Your task to perform on an android device: change the clock display to analog Image 0: 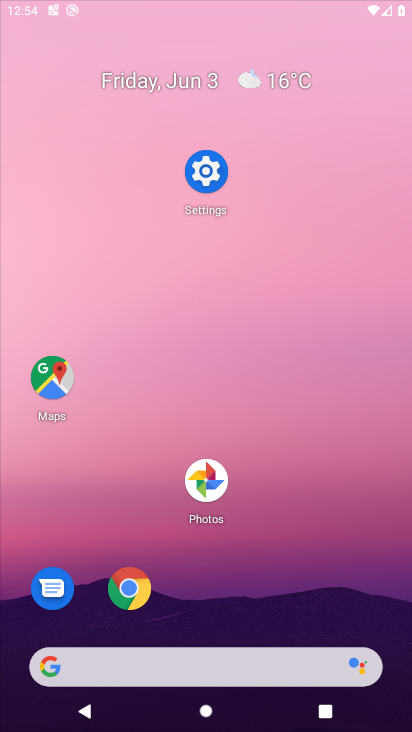
Step 0: click (314, 315)
Your task to perform on an android device: change the clock display to analog Image 1: 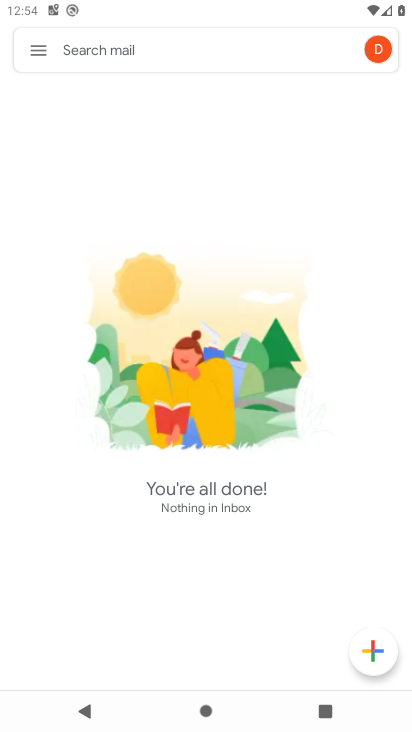
Step 1: drag from (216, 584) to (264, 231)
Your task to perform on an android device: change the clock display to analog Image 2: 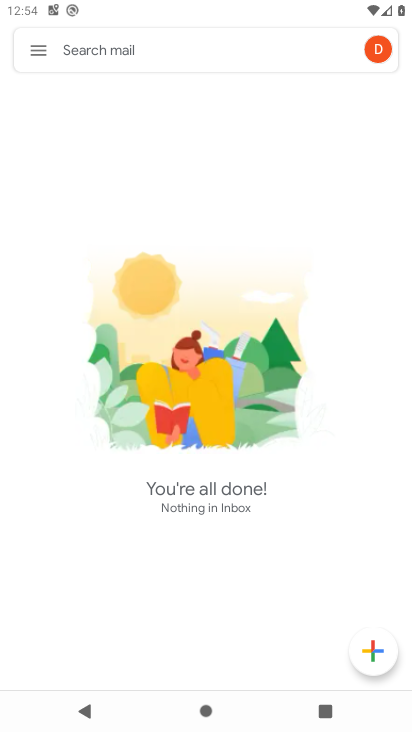
Step 2: press home button
Your task to perform on an android device: change the clock display to analog Image 3: 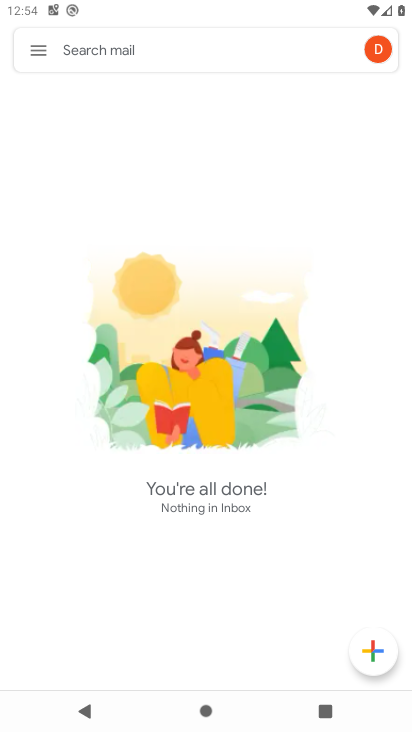
Step 3: drag from (70, 630) to (140, 419)
Your task to perform on an android device: change the clock display to analog Image 4: 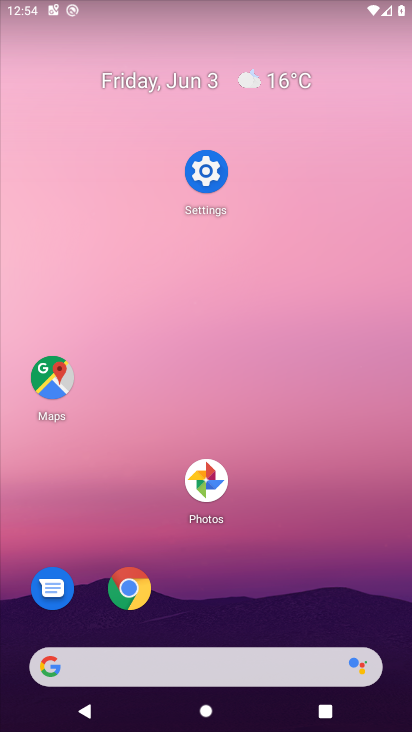
Step 4: drag from (224, 624) to (224, 181)
Your task to perform on an android device: change the clock display to analog Image 5: 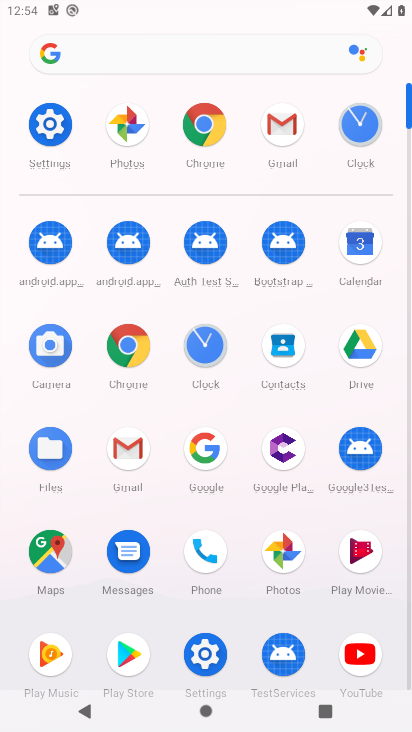
Step 5: click (285, 117)
Your task to perform on an android device: change the clock display to analog Image 6: 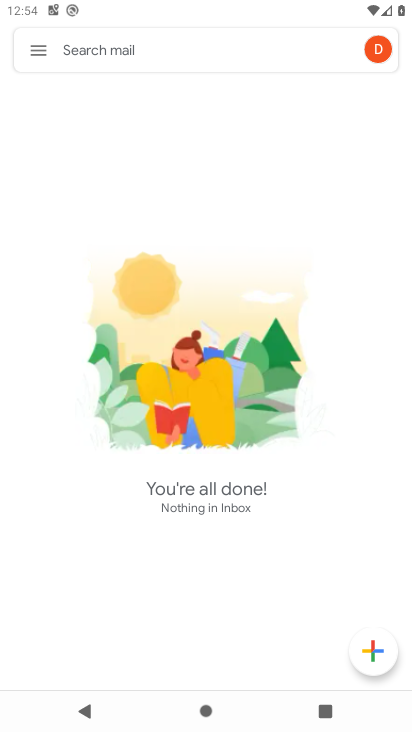
Step 6: press home button
Your task to perform on an android device: change the clock display to analog Image 7: 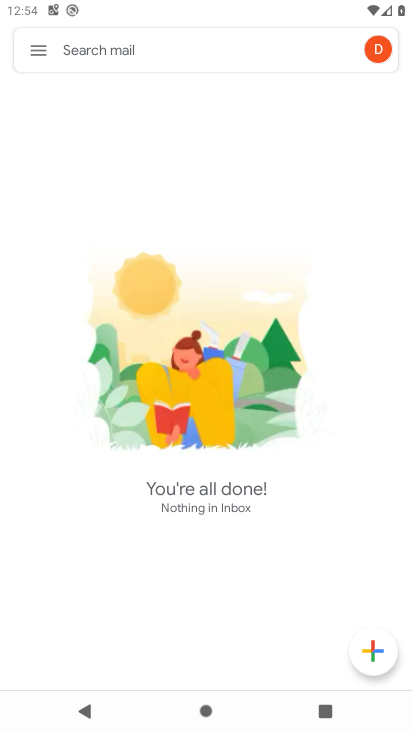
Step 7: drag from (235, 466) to (188, 15)
Your task to perform on an android device: change the clock display to analog Image 8: 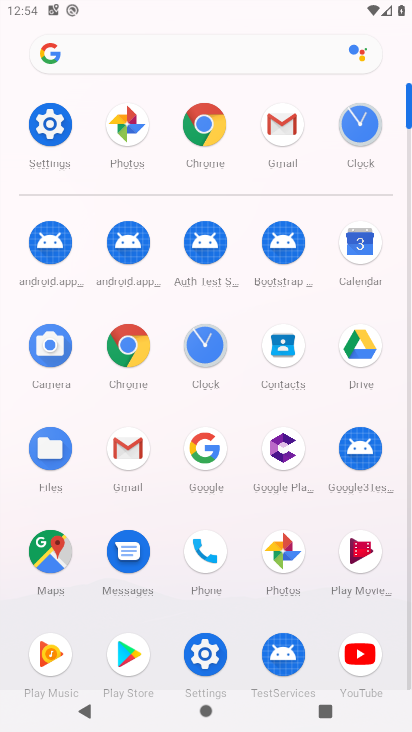
Step 8: click (206, 333)
Your task to perform on an android device: change the clock display to analog Image 9: 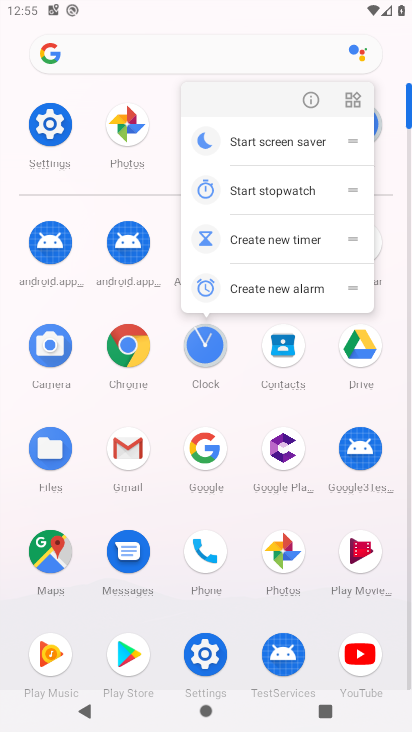
Step 9: click (325, 91)
Your task to perform on an android device: change the clock display to analog Image 10: 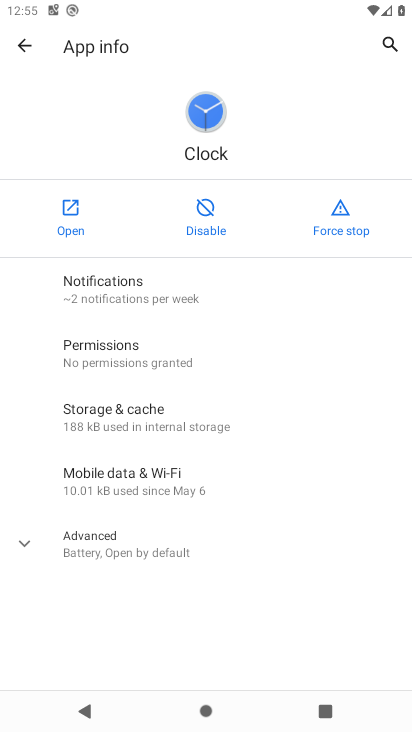
Step 10: click (81, 233)
Your task to perform on an android device: change the clock display to analog Image 11: 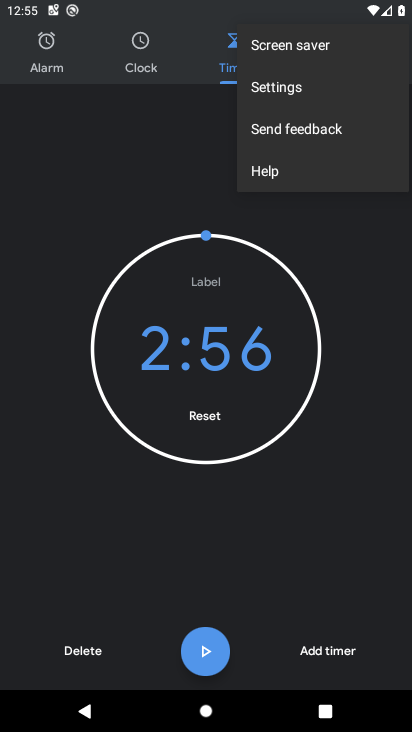
Step 11: click (281, 95)
Your task to perform on an android device: change the clock display to analog Image 12: 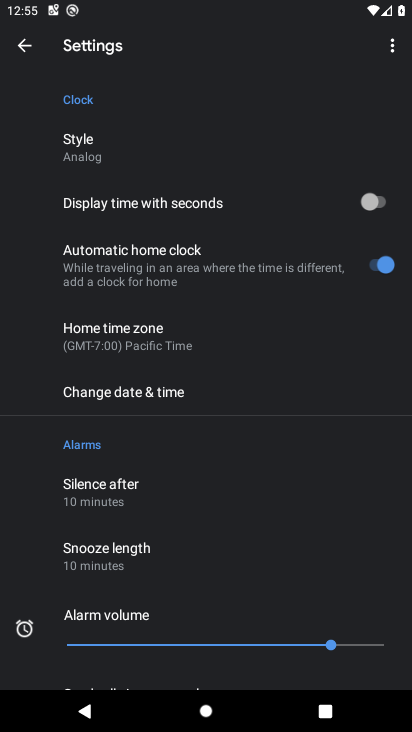
Step 12: click (118, 145)
Your task to perform on an android device: change the clock display to analog Image 13: 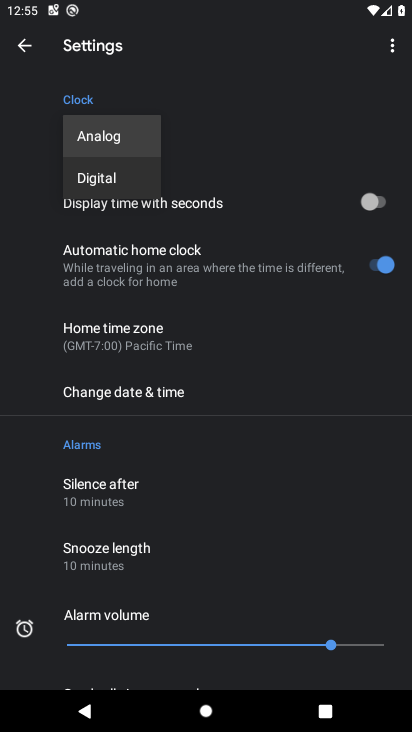
Step 13: task complete